Your task to perform on an android device: Clear all items from cart on newegg. Image 0: 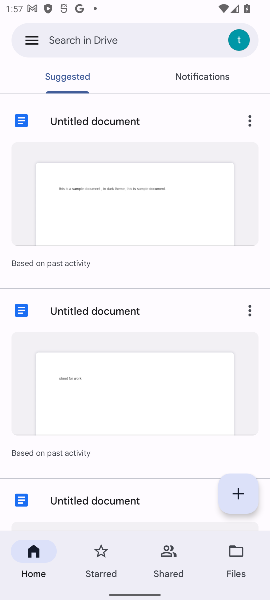
Step 0: press home button
Your task to perform on an android device: Clear all items from cart on newegg. Image 1: 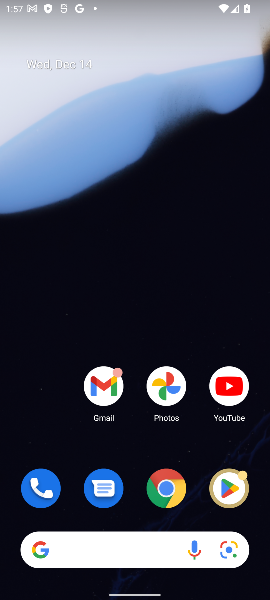
Step 1: drag from (102, 540) to (110, 304)
Your task to perform on an android device: Clear all items from cart on newegg. Image 2: 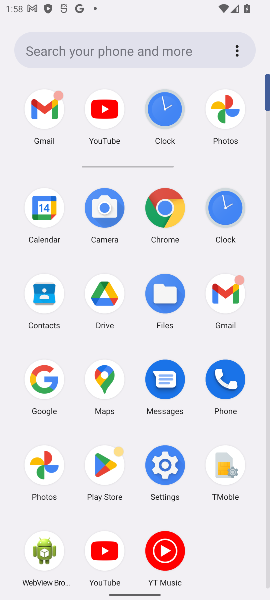
Step 2: click (44, 374)
Your task to perform on an android device: Clear all items from cart on newegg. Image 3: 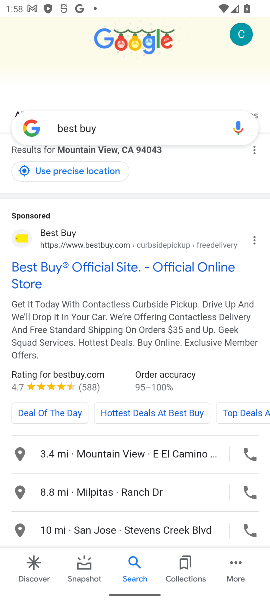
Step 3: click (123, 127)
Your task to perform on an android device: Clear all items from cart on newegg. Image 4: 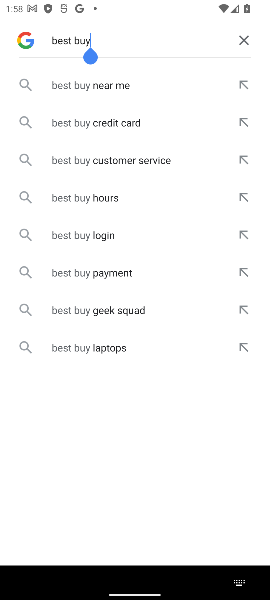
Step 4: click (245, 38)
Your task to perform on an android device: Clear all items from cart on newegg. Image 5: 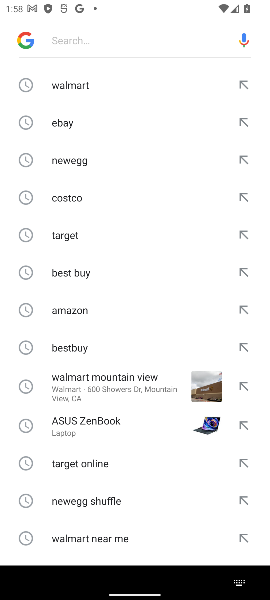
Step 5: click (65, 165)
Your task to perform on an android device: Clear all items from cart on newegg. Image 6: 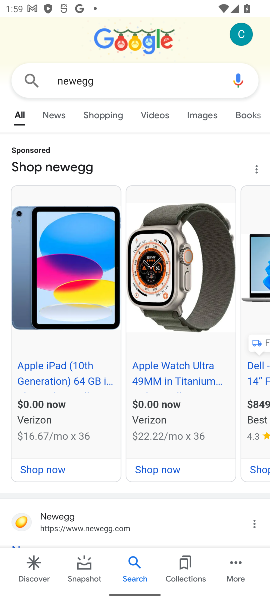
Step 6: drag from (120, 478) to (122, 180)
Your task to perform on an android device: Clear all items from cart on newegg. Image 7: 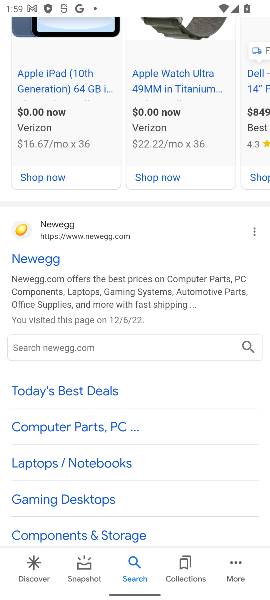
Step 7: click (49, 257)
Your task to perform on an android device: Clear all items from cart on newegg. Image 8: 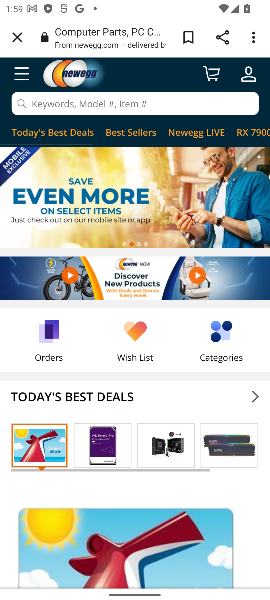
Step 8: click (211, 67)
Your task to perform on an android device: Clear all items from cart on newegg. Image 9: 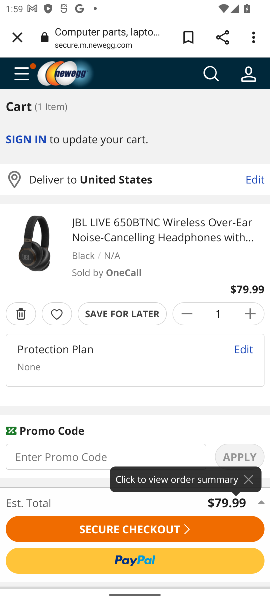
Step 9: click (22, 311)
Your task to perform on an android device: Clear all items from cart on newegg. Image 10: 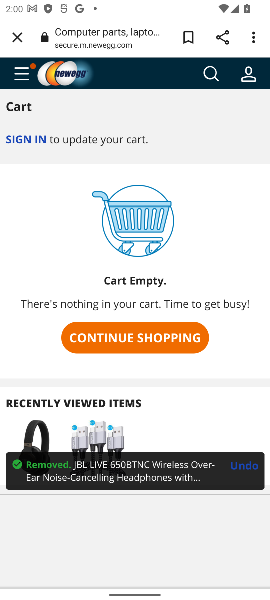
Step 10: task complete